Your task to perform on an android device: Open Google Chrome and open the bookmarks view Image 0: 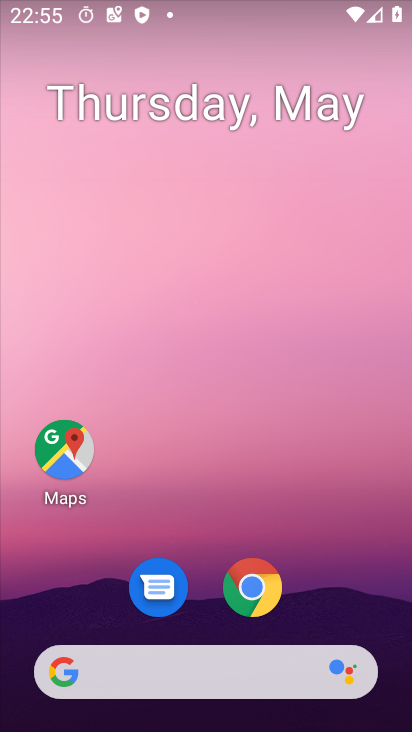
Step 0: click (252, 580)
Your task to perform on an android device: Open Google Chrome and open the bookmarks view Image 1: 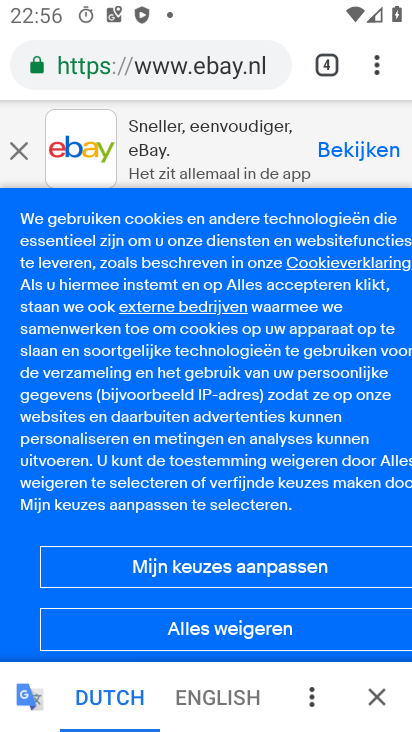
Step 1: click (374, 63)
Your task to perform on an android device: Open Google Chrome and open the bookmarks view Image 2: 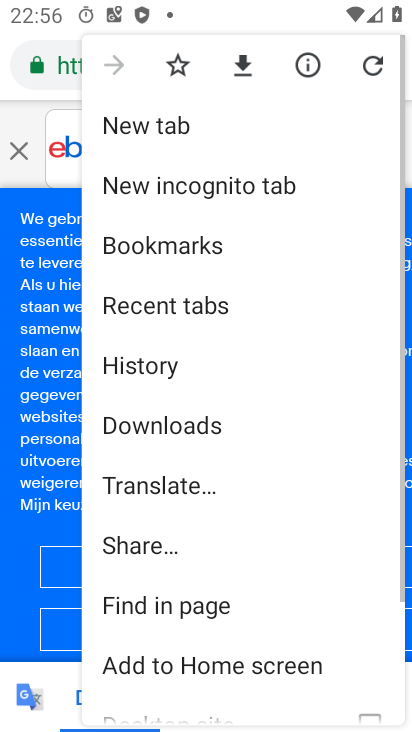
Step 2: click (173, 250)
Your task to perform on an android device: Open Google Chrome and open the bookmarks view Image 3: 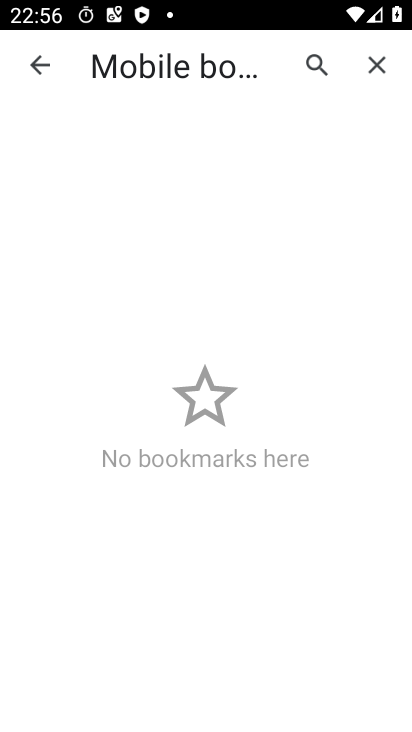
Step 3: task complete